Your task to perform on an android device: delete browsing data in the chrome app Image 0: 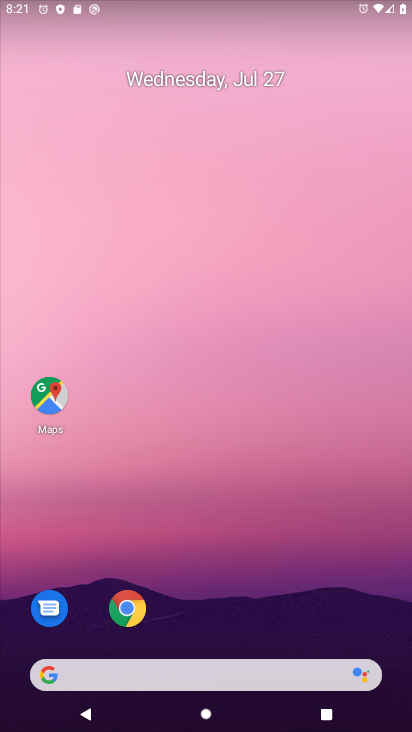
Step 0: click (133, 593)
Your task to perform on an android device: delete browsing data in the chrome app Image 1: 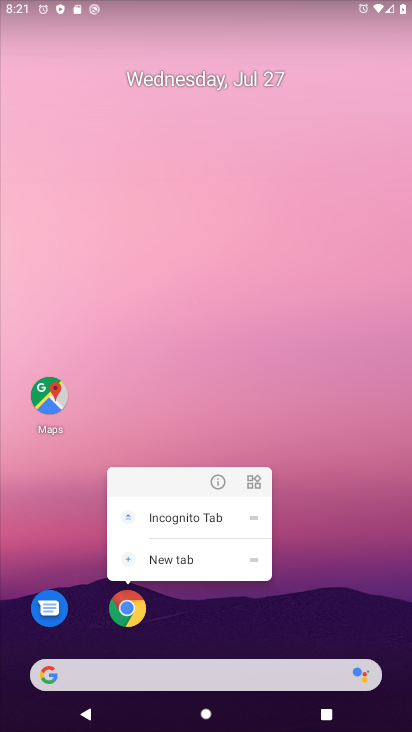
Step 1: click (127, 603)
Your task to perform on an android device: delete browsing data in the chrome app Image 2: 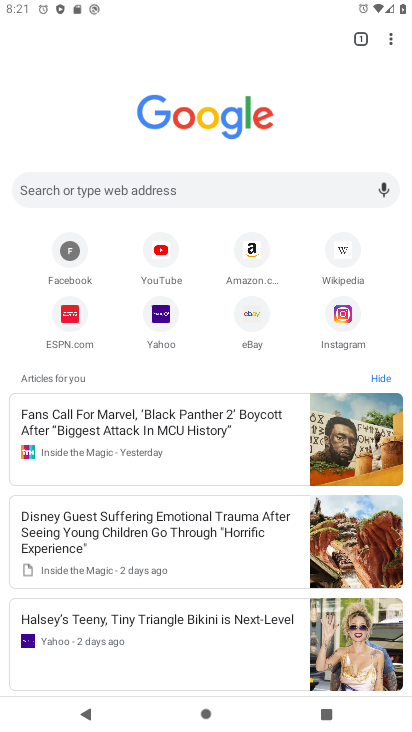
Step 2: click (395, 42)
Your task to perform on an android device: delete browsing data in the chrome app Image 3: 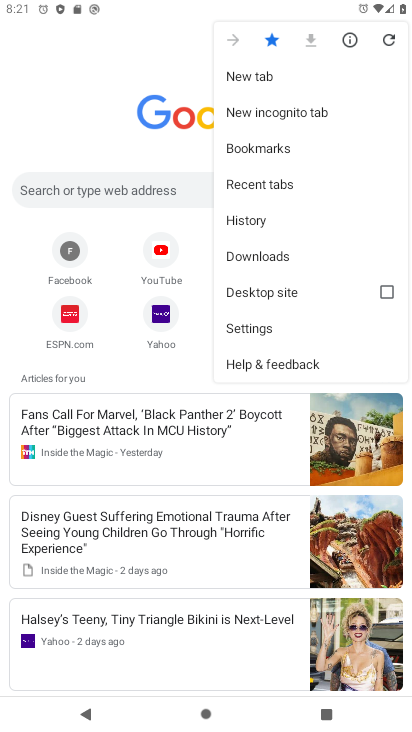
Step 3: click (253, 221)
Your task to perform on an android device: delete browsing data in the chrome app Image 4: 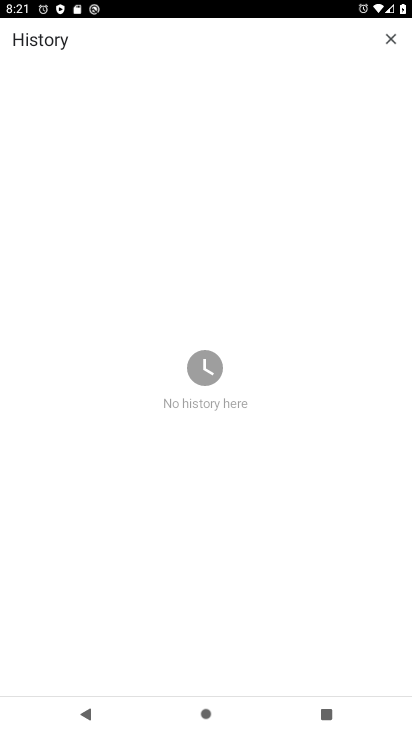
Step 4: task complete